Your task to perform on an android device: Open accessibility settings Image 0: 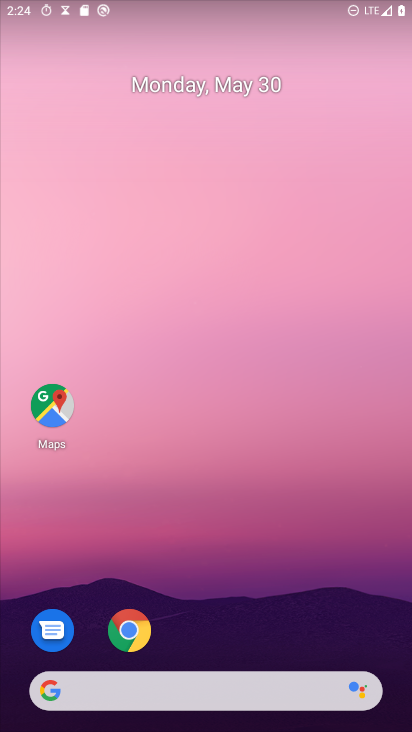
Step 0: press home button
Your task to perform on an android device: Open accessibility settings Image 1: 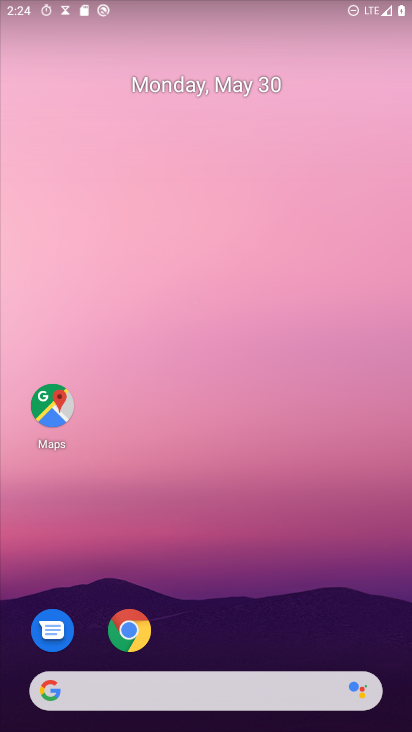
Step 1: drag from (244, 650) to (223, 31)
Your task to perform on an android device: Open accessibility settings Image 2: 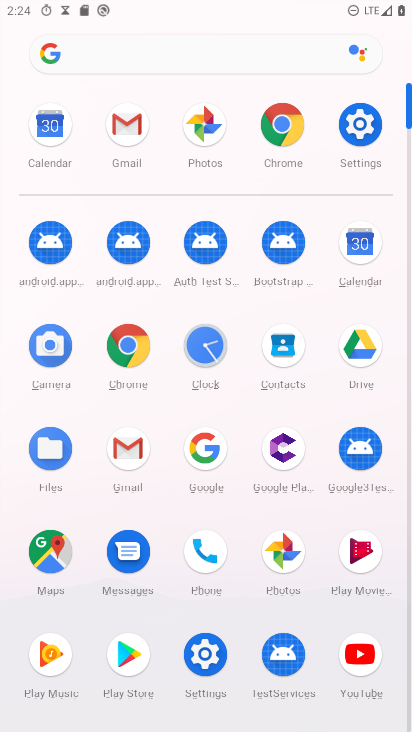
Step 2: click (372, 124)
Your task to perform on an android device: Open accessibility settings Image 3: 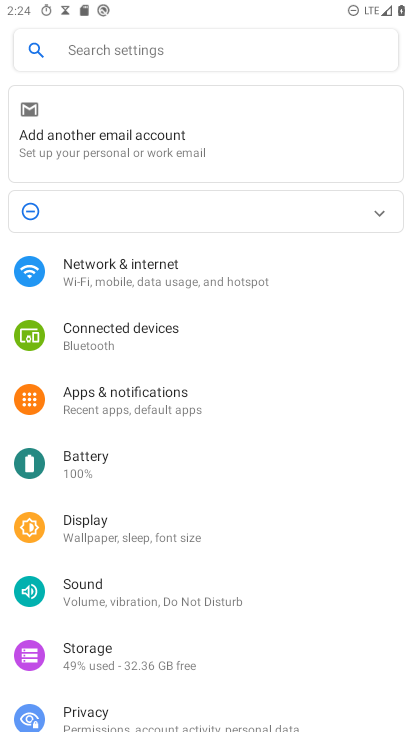
Step 3: click (117, 53)
Your task to perform on an android device: Open accessibility settings Image 4: 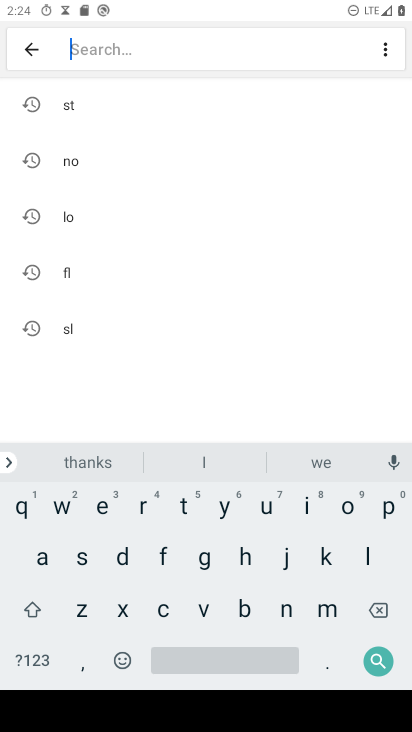
Step 4: click (45, 559)
Your task to perform on an android device: Open accessibility settings Image 5: 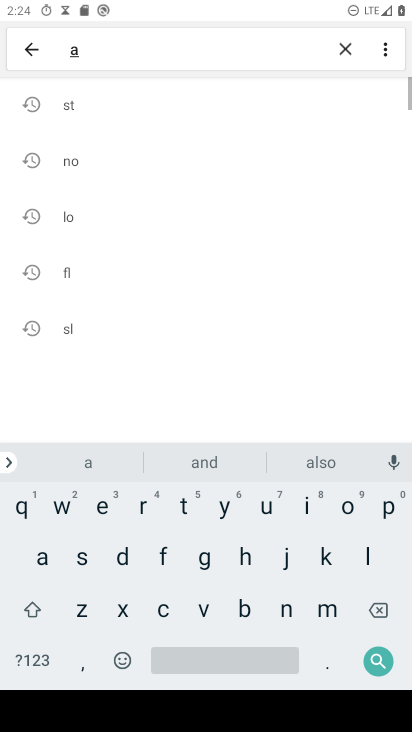
Step 5: click (164, 609)
Your task to perform on an android device: Open accessibility settings Image 6: 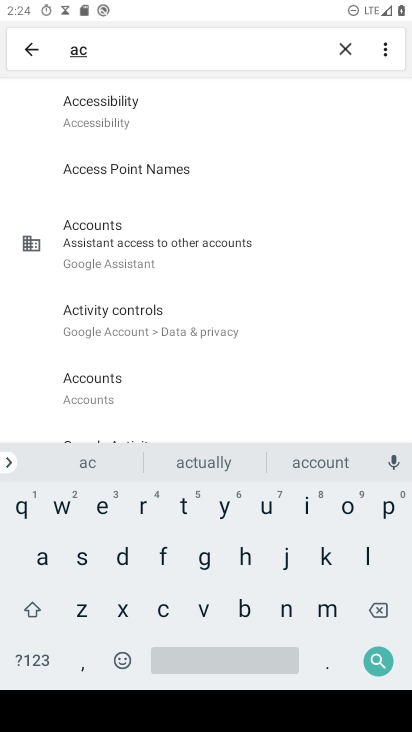
Step 6: click (132, 136)
Your task to perform on an android device: Open accessibility settings Image 7: 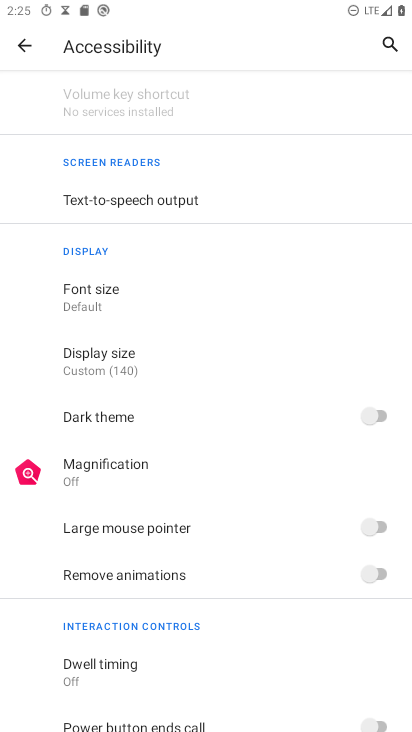
Step 7: task complete